Your task to perform on an android device: toggle pop-ups in chrome Image 0: 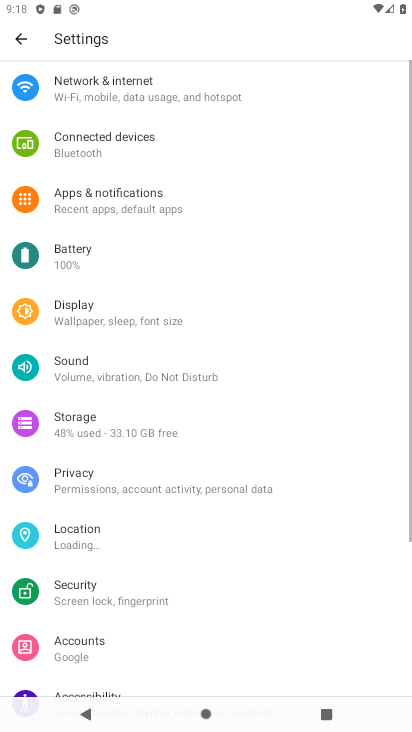
Step 0: press home button
Your task to perform on an android device: toggle pop-ups in chrome Image 1: 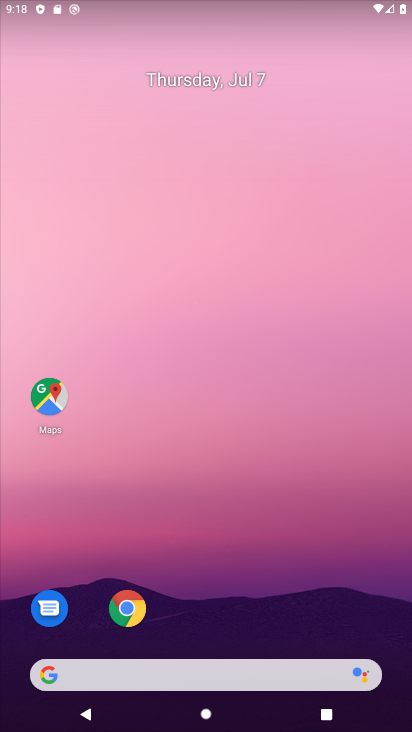
Step 1: drag from (200, 636) to (190, 6)
Your task to perform on an android device: toggle pop-ups in chrome Image 2: 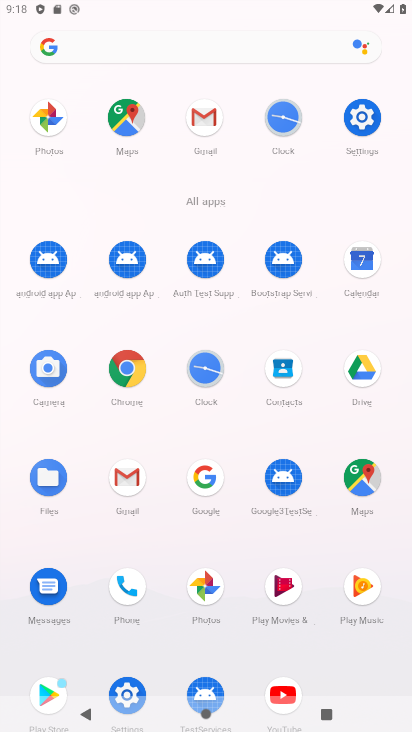
Step 2: click (134, 341)
Your task to perform on an android device: toggle pop-ups in chrome Image 3: 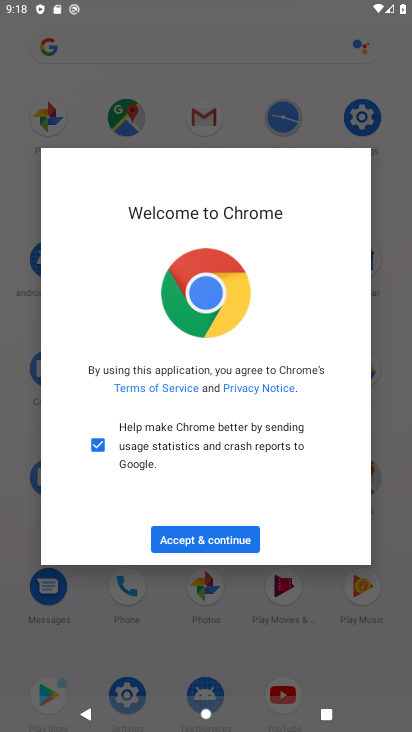
Step 3: click (187, 527)
Your task to perform on an android device: toggle pop-ups in chrome Image 4: 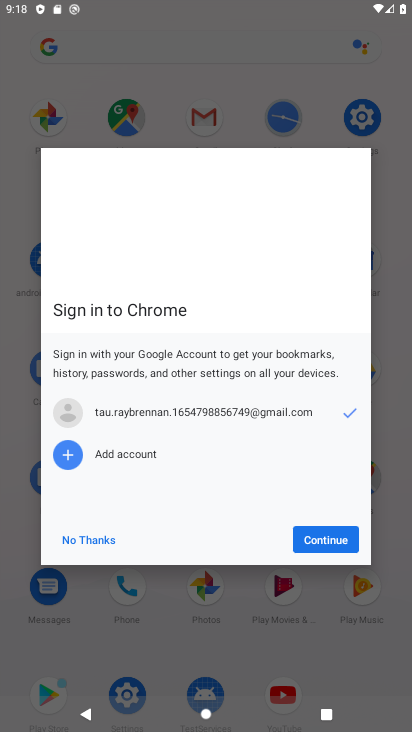
Step 4: click (313, 532)
Your task to perform on an android device: toggle pop-ups in chrome Image 5: 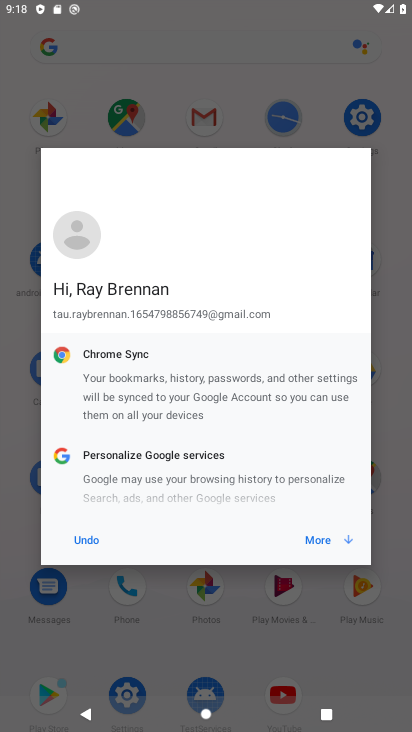
Step 5: click (323, 542)
Your task to perform on an android device: toggle pop-ups in chrome Image 6: 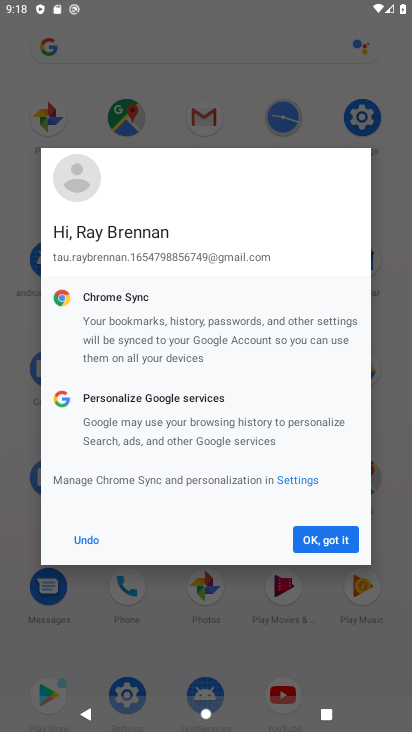
Step 6: click (323, 542)
Your task to perform on an android device: toggle pop-ups in chrome Image 7: 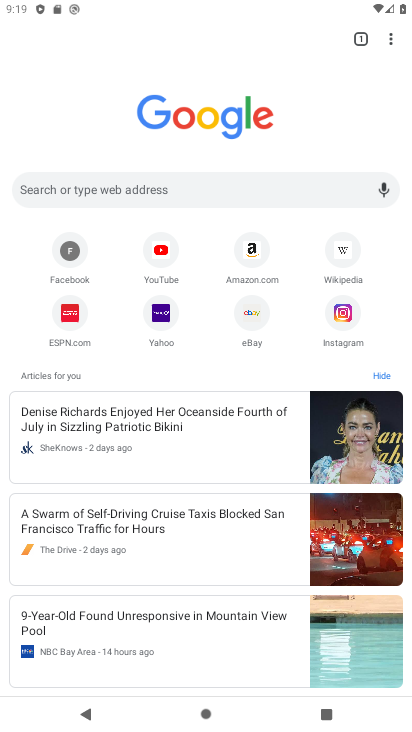
Step 7: click (390, 39)
Your task to perform on an android device: toggle pop-ups in chrome Image 8: 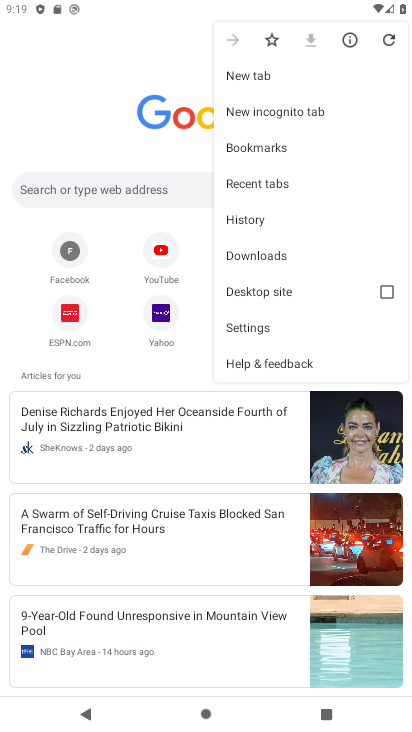
Step 8: click (242, 328)
Your task to perform on an android device: toggle pop-ups in chrome Image 9: 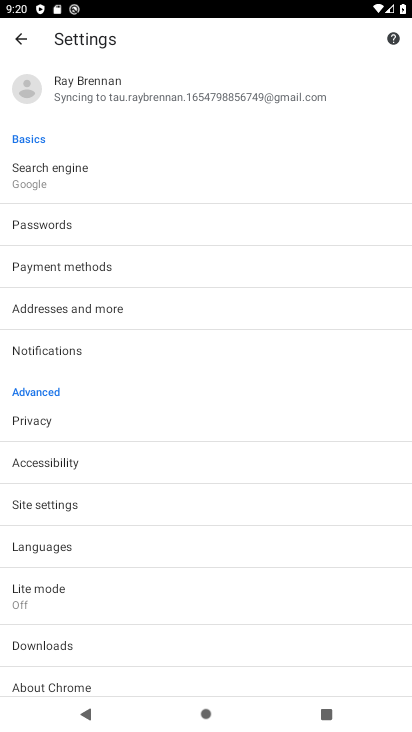
Step 9: click (35, 497)
Your task to perform on an android device: toggle pop-ups in chrome Image 10: 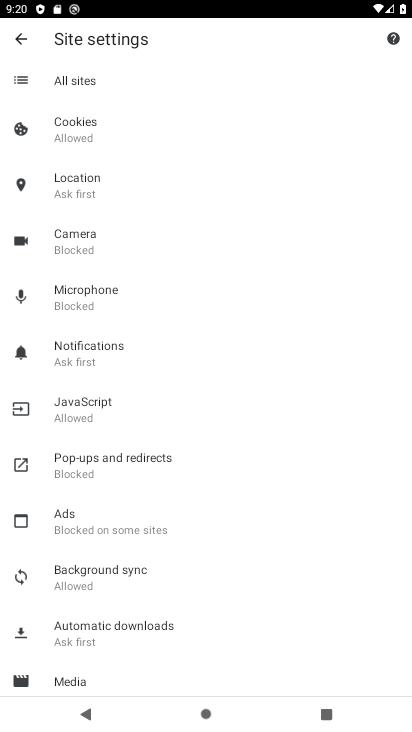
Step 10: click (76, 472)
Your task to perform on an android device: toggle pop-ups in chrome Image 11: 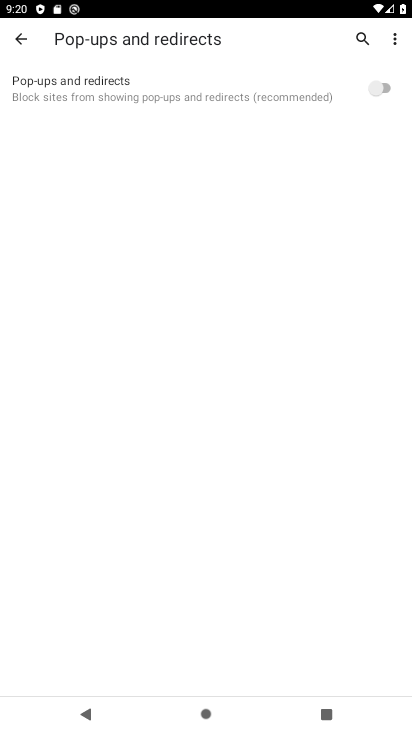
Step 11: click (370, 103)
Your task to perform on an android device: toggle pop-ups in chrome Image 12: 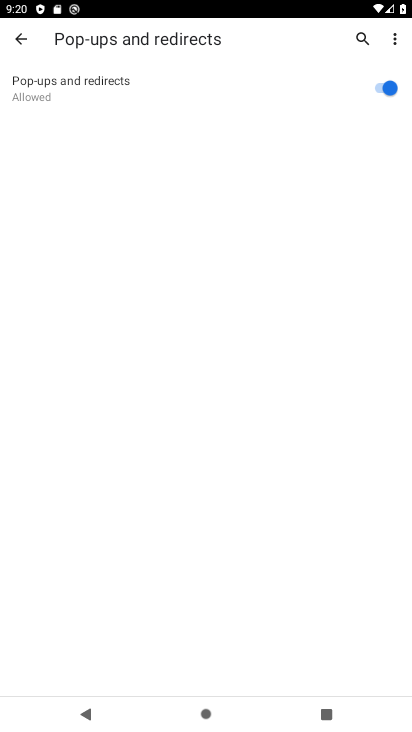
Step 12: click (370, 103)
Your task to perform on an android device: toggle pop-ups in chrome Image 13: 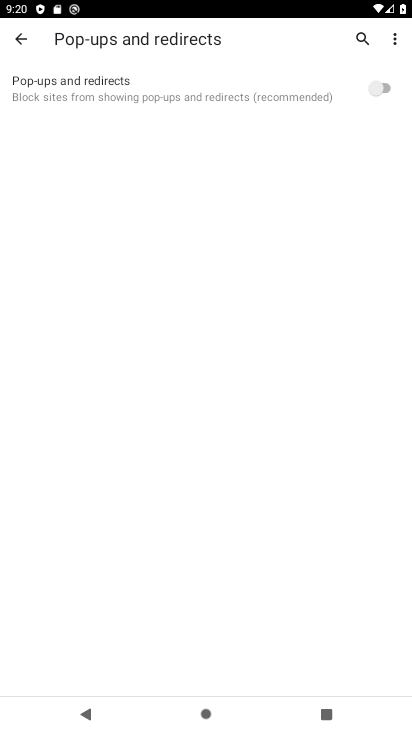
Step 13: task complete